Your task to perform on an android device: Search for razer blade on ebay.com, select the first entry, add it to the cart, then select checkout. Image 0: 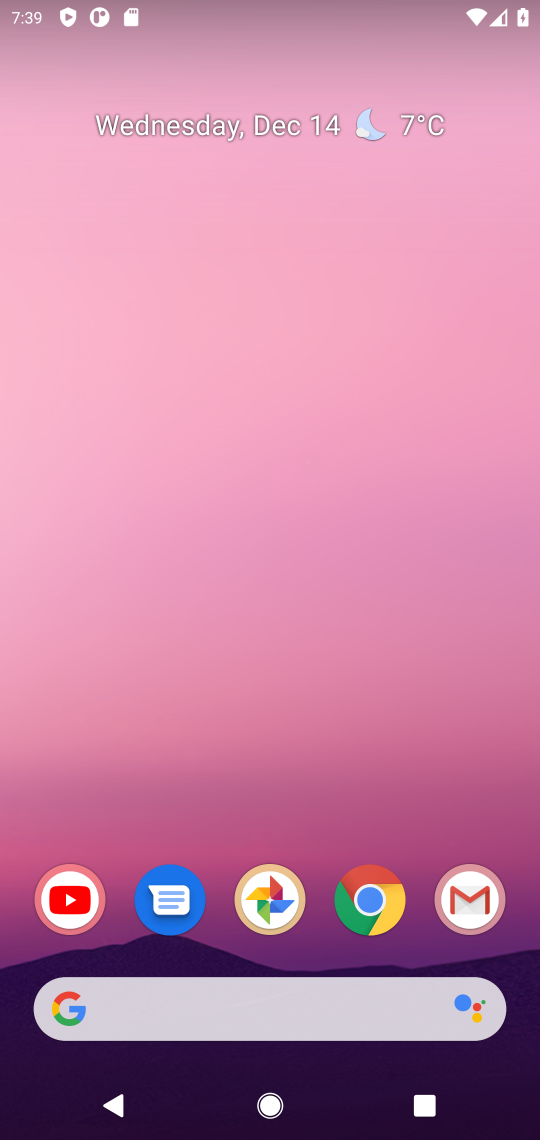
Step 0: click (284, 1023)
Your task to perform on an android device: Search for razer blade on ebay.com, select the first entry, add it to the cart, then select checkout. Image 1: 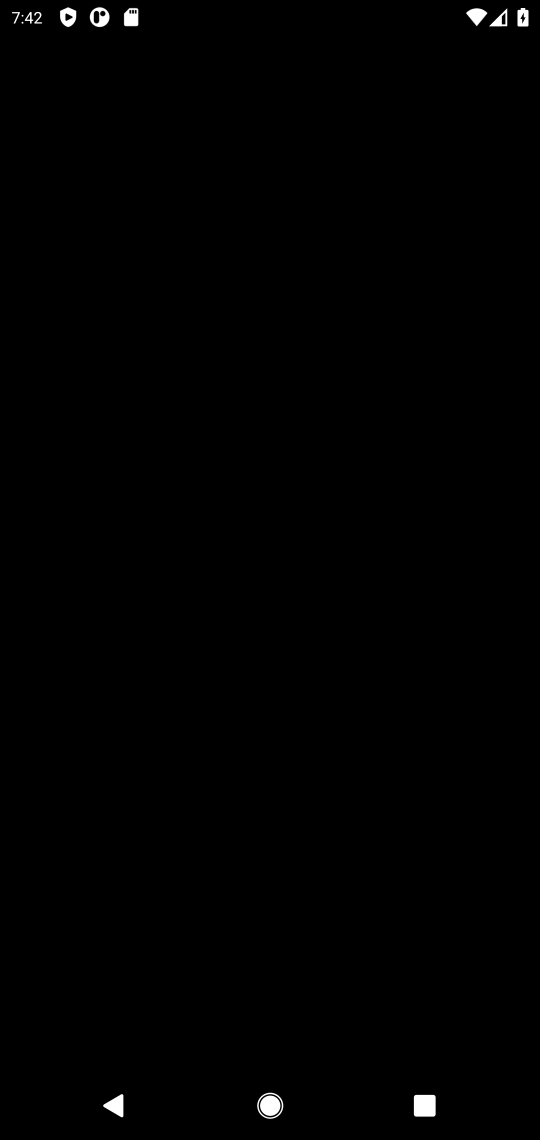
Step 1: press home button
Your task to perform on an android device: Search for razer blade on ebay.com, select the first entry, add it to the cart, then select checkout. Image 2: 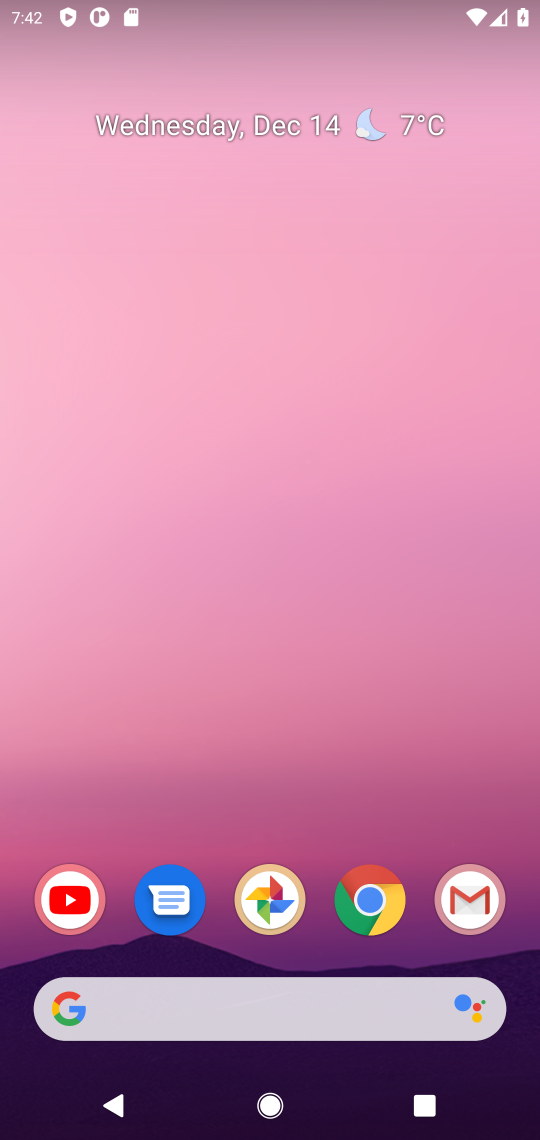
Step 2: click (254, 1018)
Your task to perform on an android device: Search for razer blade on ebay.com, select the first entry, add it to the cart, then select checkout. Image 3: 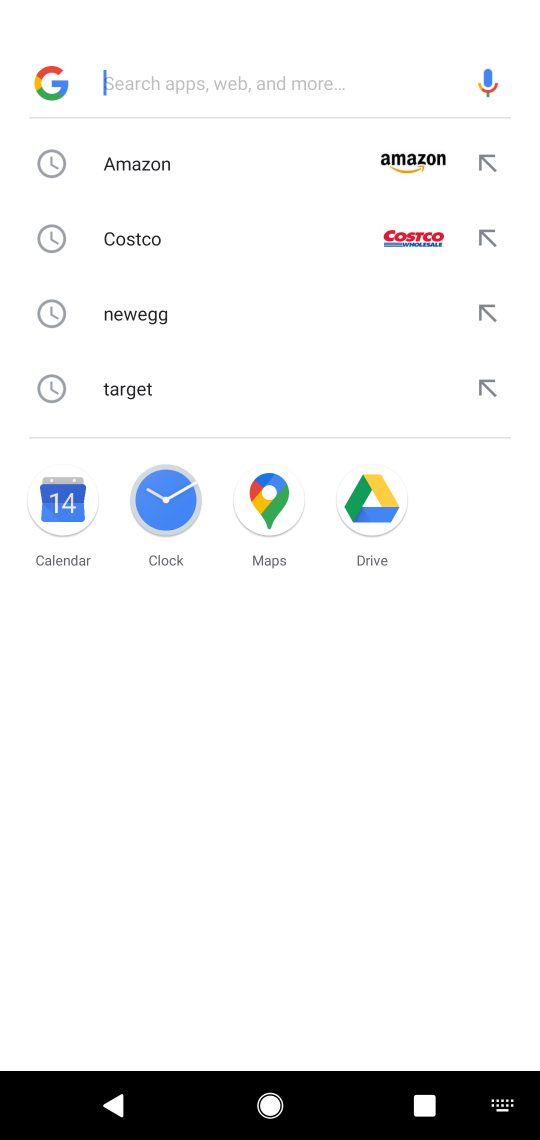
Step 3: type "ebay.com"
Your task to perform on an android device: Search for razer blade on ebay.com, select the first entry, add it to the cart, then select checkout. Image 4: 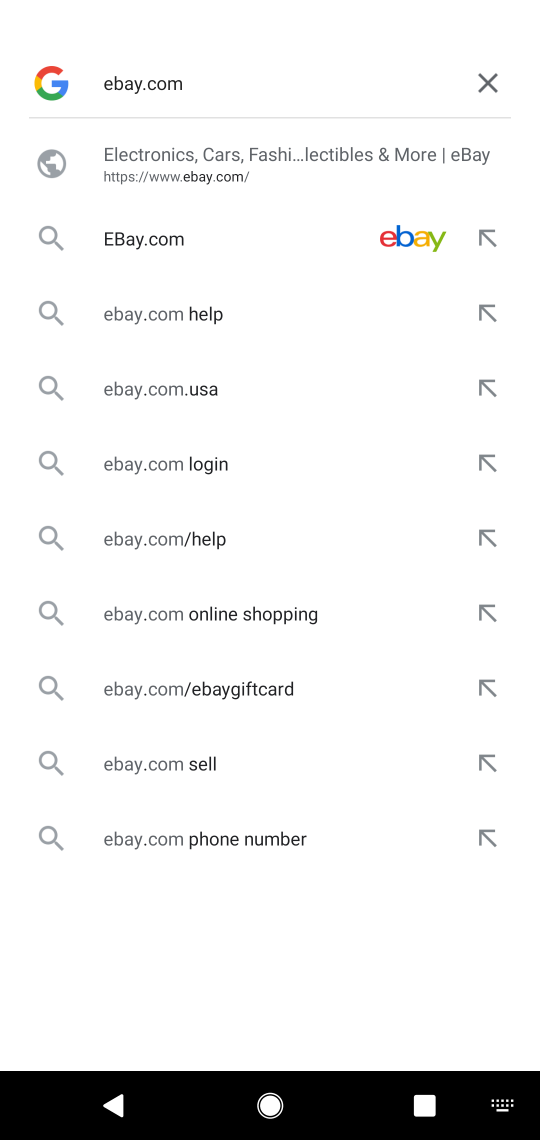
Step 4: click (209, 237)
Your task to perform on an android device: Search for razer blade on ebay.com, select the first entry, add it to the cart, then select checkout. Image 5: 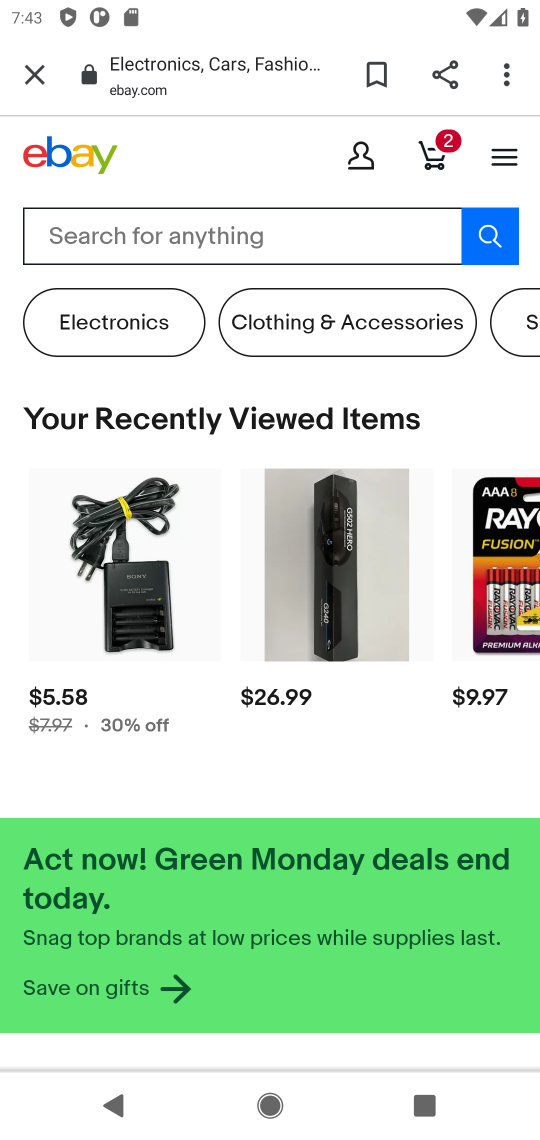
Step 5: click (327, 236)
Your task to perform on an android device: Search for razer blade on ebay.com, select the first entry, add it to the cart, then select checkout. Image 6: 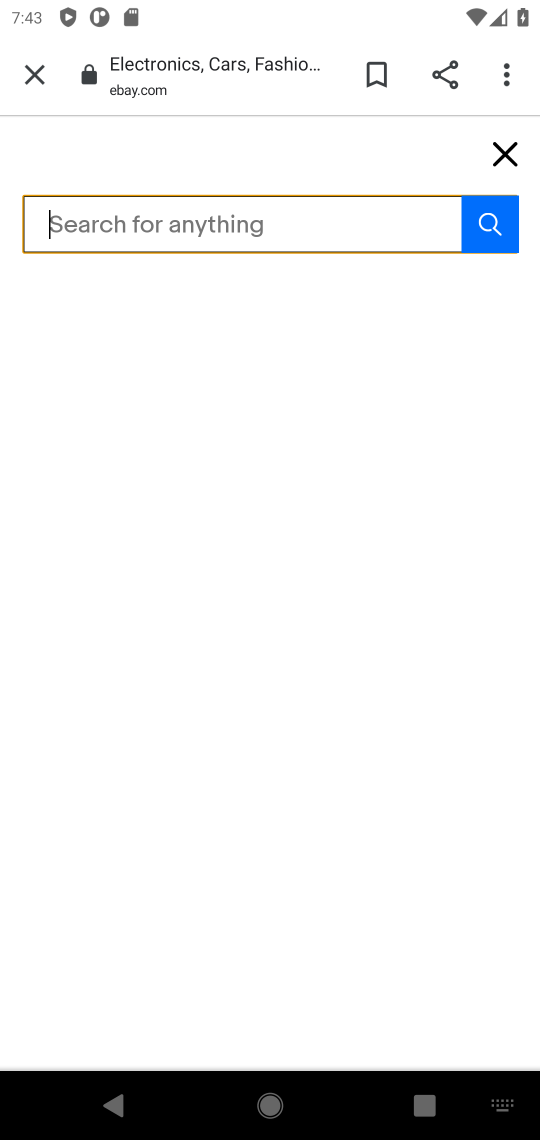
Step 6: type " razer blade"
Your task to perform on an android device: Search for razer blade on ebay.com, select the first entry, add it to the cart, then select checkout. Image 7: 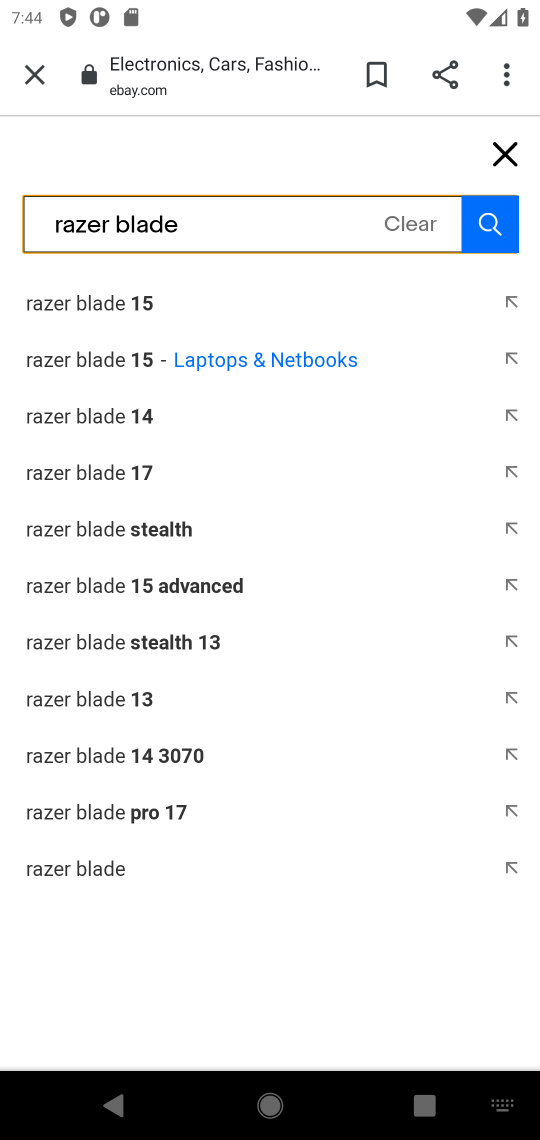
Step 7: click (478, 238)
Your task to perform on an android device: Search for razer blade on ebay.com, select the first entry, add it to the cart, then select checkout. Image 8: 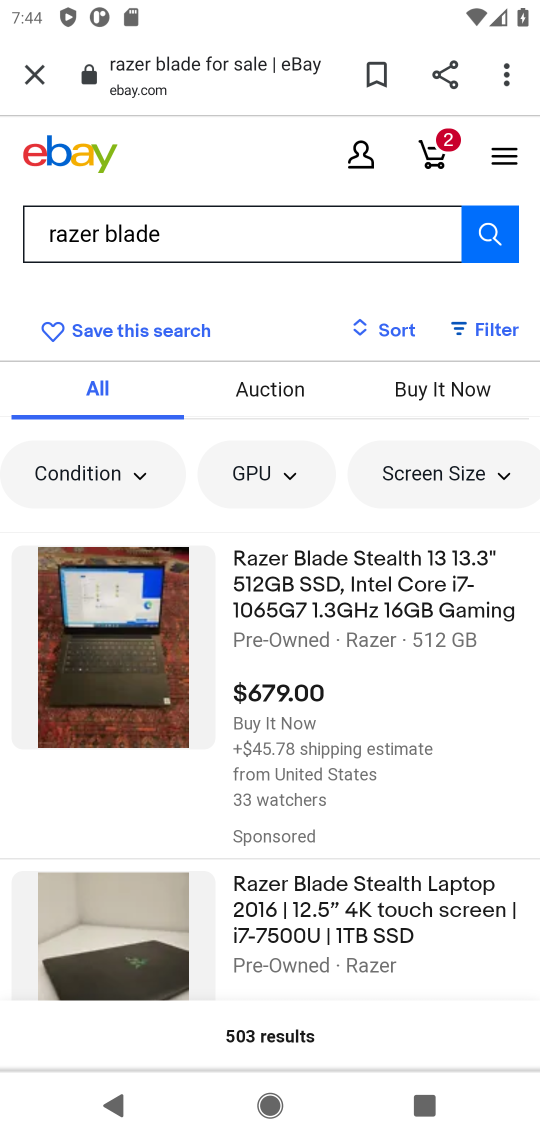
Step 8: click (281, 626)
Your task to perform on an android device: Search for razer blade on ebay.com, select the first entry, add it to the cart, then select checkout. Image 9: 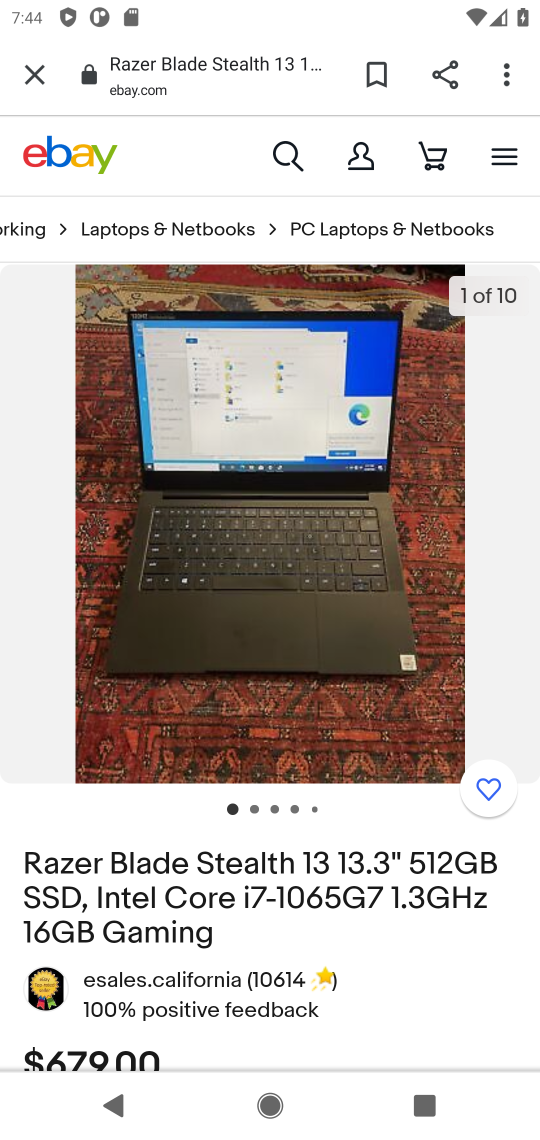
Step 9: drag from (311, 996) to (243, 797)
Your task to perform on an android device: Search for razer blade on ebay.com, select the first entry, add it to the cart, then select checkout. Image 10: 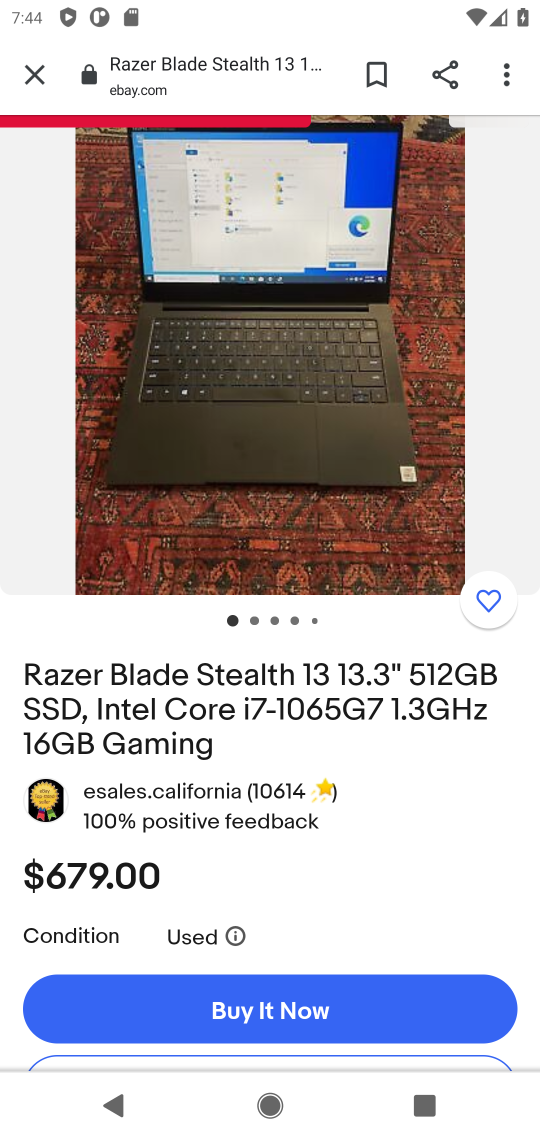
Step 10: drag from (328, 900) to (228, 572)
Your task to perform on an android device: Search for razer blade on ebay.com, select the first entry, add it to the cart, then select checkout. Image 11: 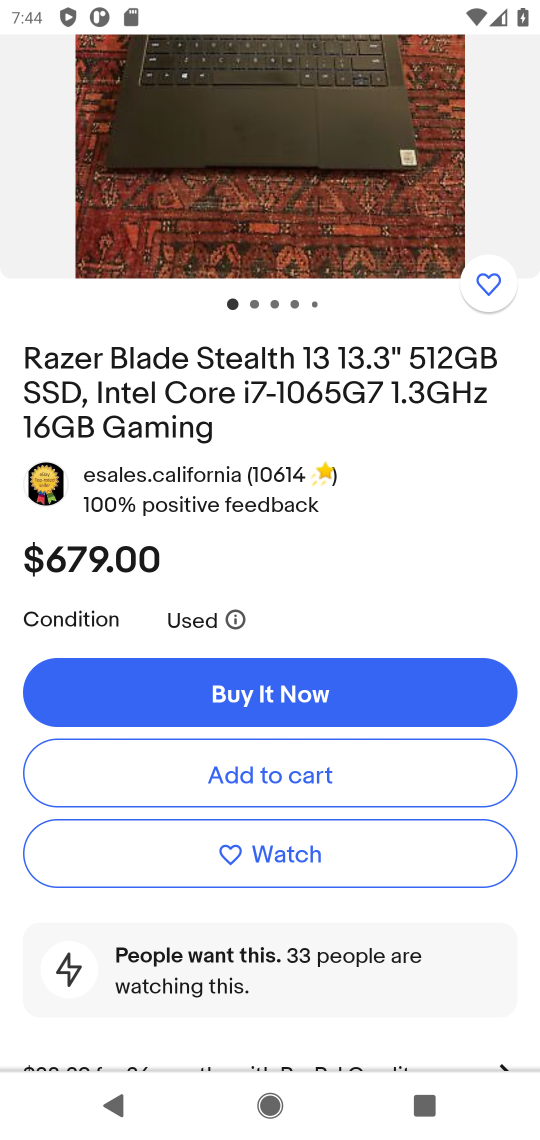
Step 11: click (250, 768)
Your task to perform on an android device: Search for razer blade on ebay.com, select the first entry, add it to the cart, then select checkout. Image 12: 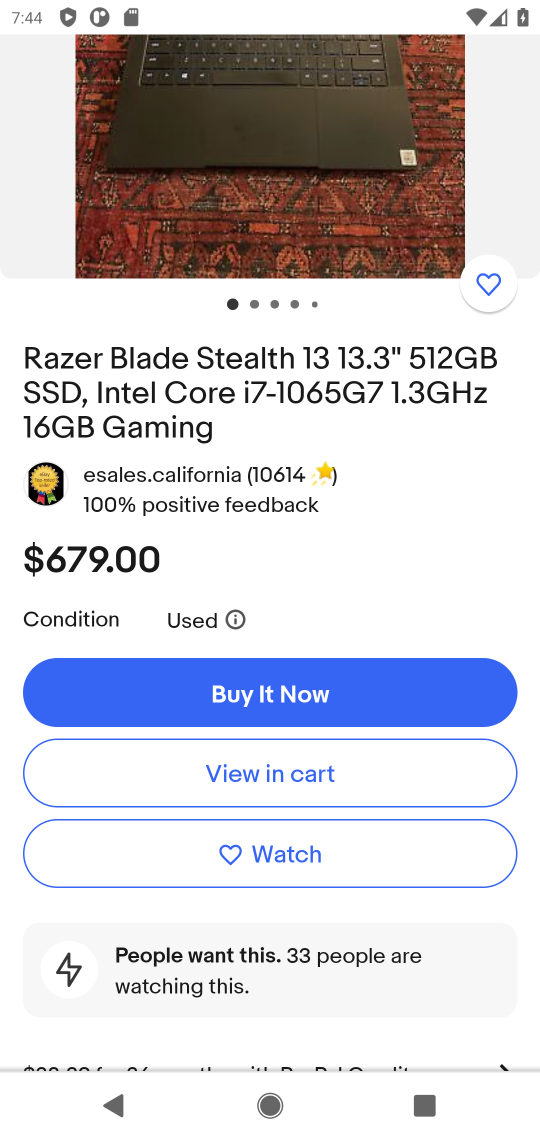
Step 12: click (250, 768)
Your task to perform on an android device: Search for razer blade on ebay.com, select the first entry, add it to the cart, then select checkout. Image 13: 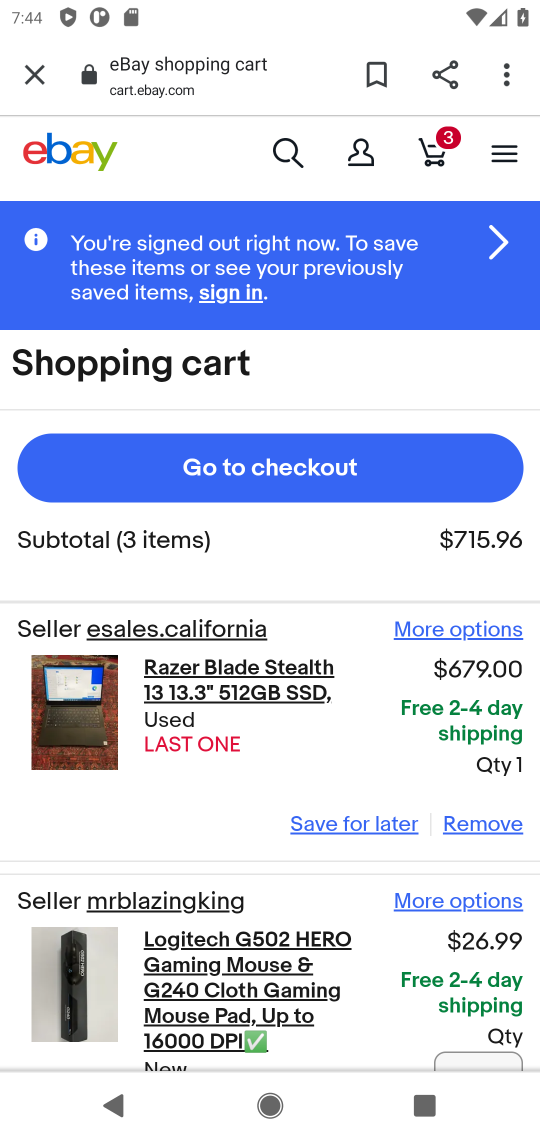
Step 13: click (274, 474)
Your task to perform on an android device: Search for razer blade on ebay.com, select the first entry, add it to the cart, then select checkout. Image 14: 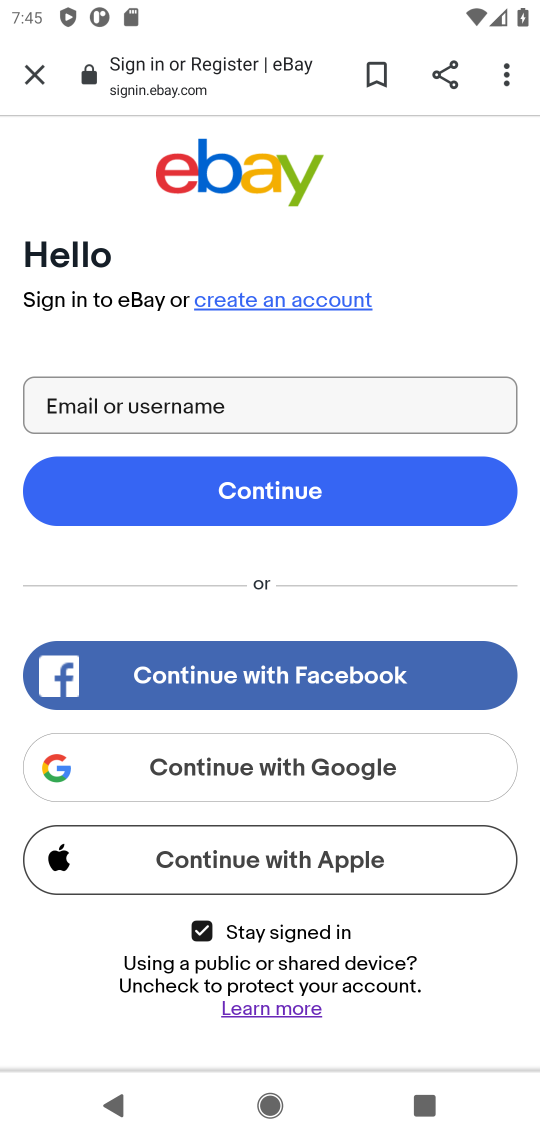
Step 14: task complete